Your task to perform on an android device: toggle show notifications on the lock screen Image 0: 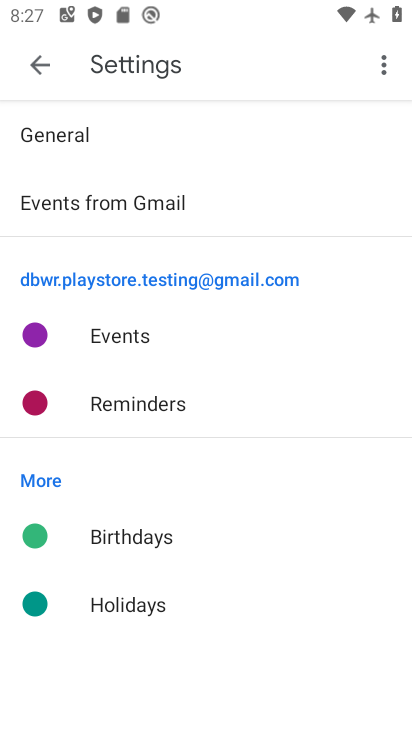
Step 0: press home button
Your task to perform on an android device: toggle show notifications on the lock screen Image 1: 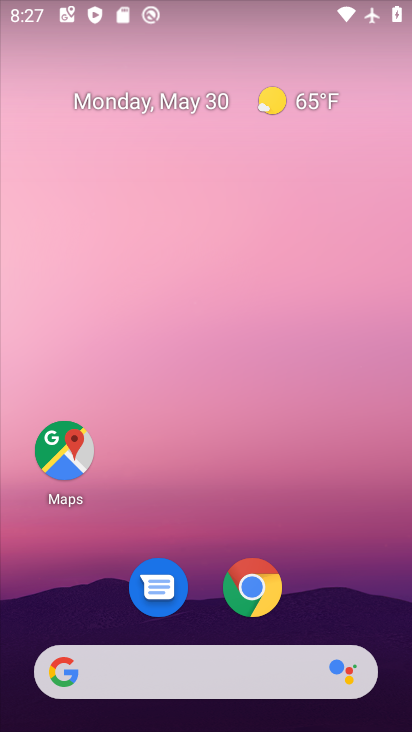
Step 1: drag from (202, 670) to (246, 66)
Your task to perform on an android device: toggle show notifications on the lock screen Image 2: 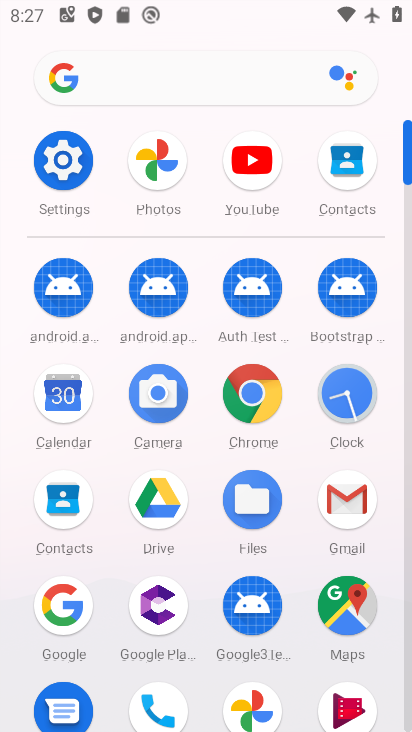
Step 2: click (52, 164)
Your task to perform on an android device: toggle show notifications on the lock screen Image 3: 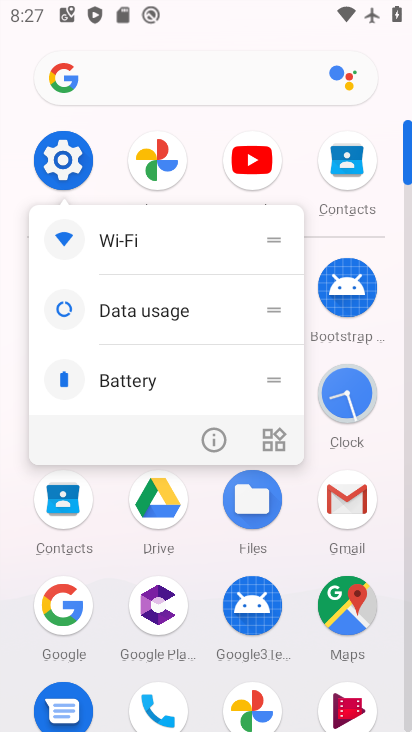
Step 3: click (63, 159)
Your task to perform on an android device: toggle show notifications on the lock screen Image 4: 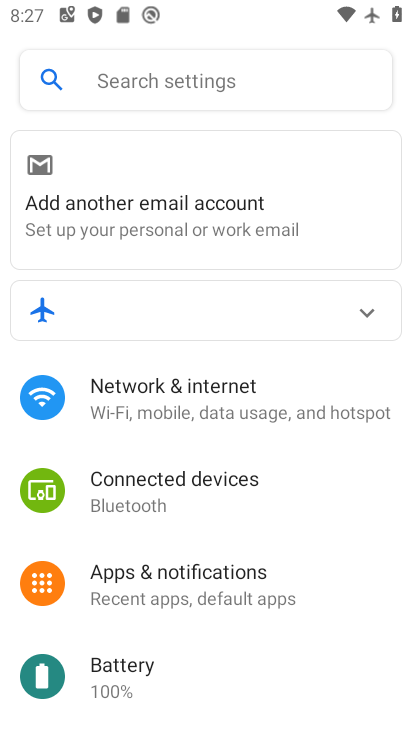
Step 4: click (171, 580)
Your task to perform on an android device: toggle show notifications on the lock screen Image 5: 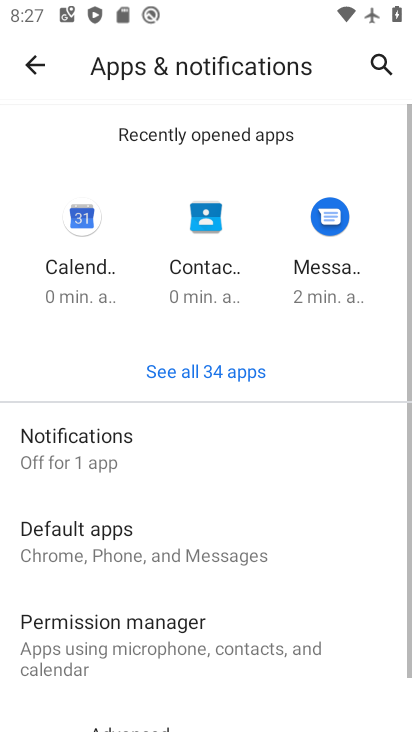
Step 5: click (111, 454)
Your task to perform on an android device: toggle show notifications on the lock screen Image 6: 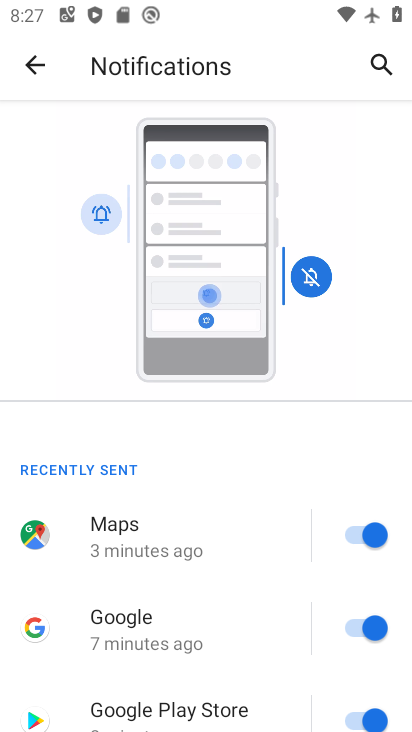
Step 6: drag from (256, 663) to (298, 109)
Your task to perform on an android device: toggle show notifications on the lock screen Image 7: 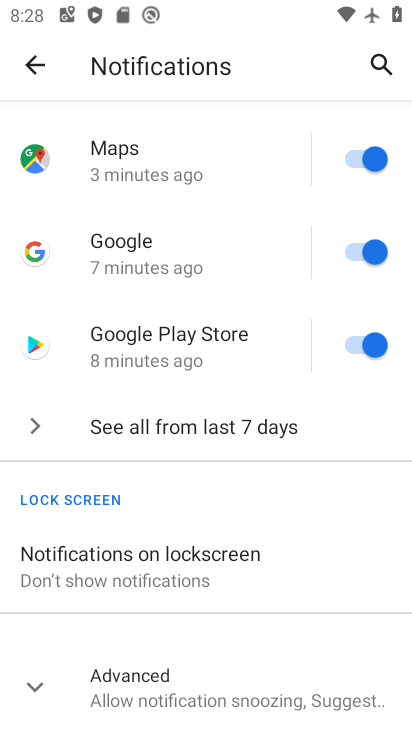
Step 7: click (183, 560)
Your task to perform on an android device: toggle show notifications on the lock screen Image 8: 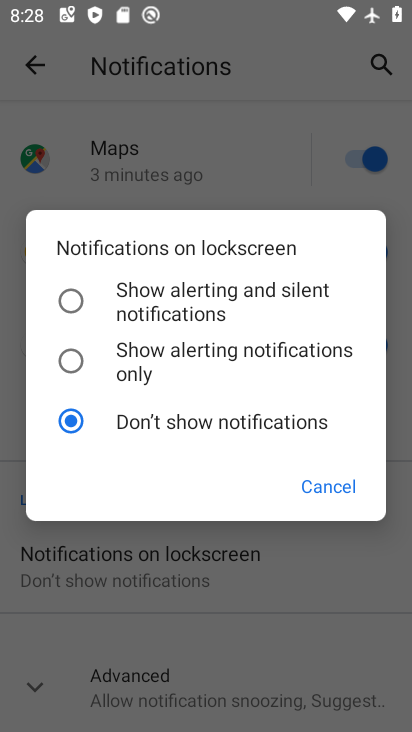
Step 8: click (72, 297)
Your task to perform on an android device: toggle show notifications on the lock screen Image 9: 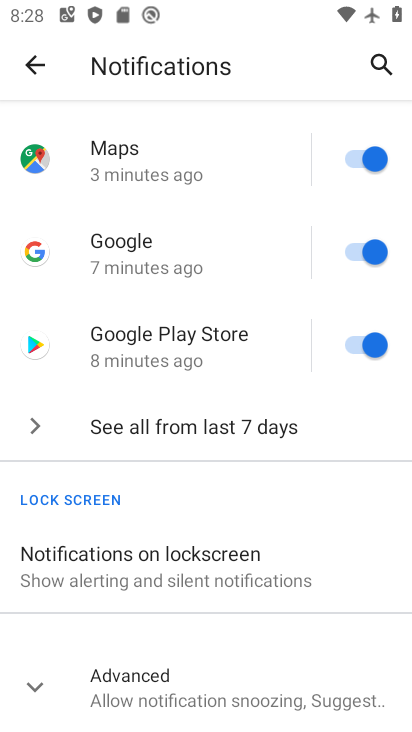
Step 9: task complete